Your task to perform on an android device: open a bookmark in the chrome app Image 0: 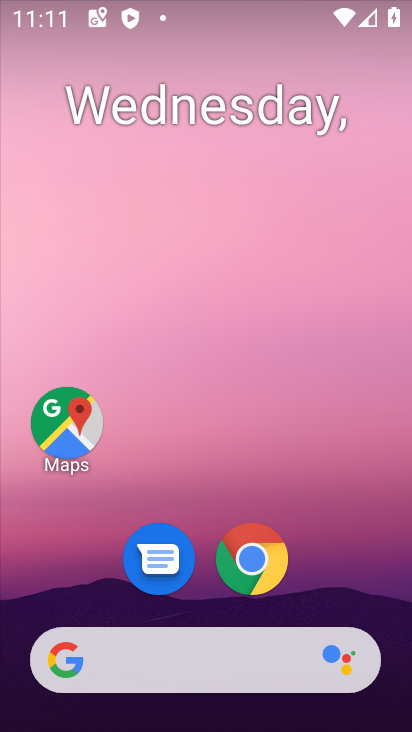
Step 0: click (272, 557)
Your task to perform on an android device: open a bookmark in the chrome app Image 1: 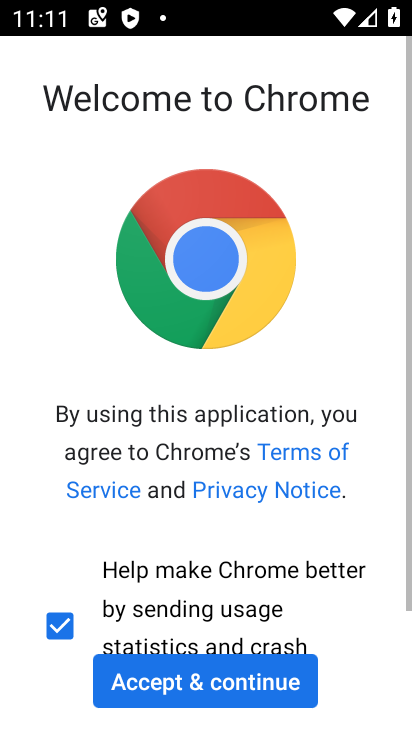
Step 1: click (214, 694)
Your task to perform on an android device: open a bookmark in the chrome app Image 2: 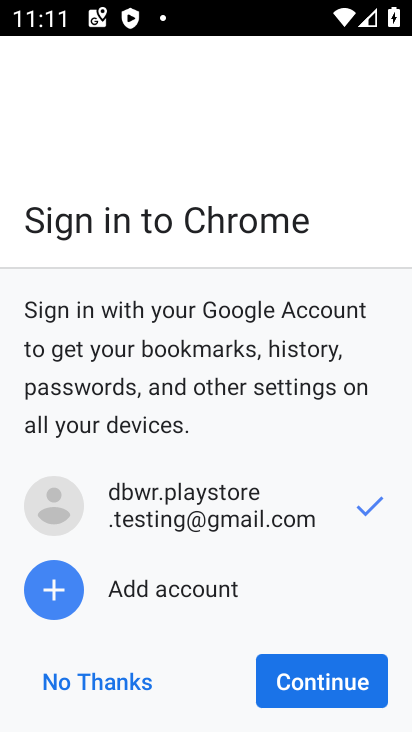
Step 2: click (318, 686)
Your task to perform on an android device: open a bookmark in the chrome app Image 3: 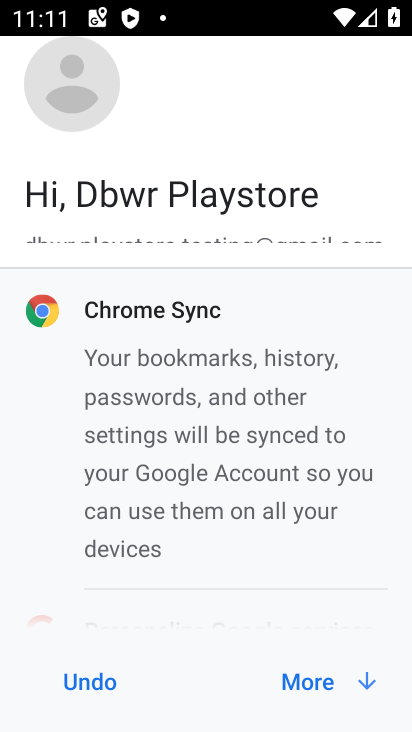
Step 3: click (325, 683)
Your task to perform on an android device: open a bookmark in the chrome app Image 4: 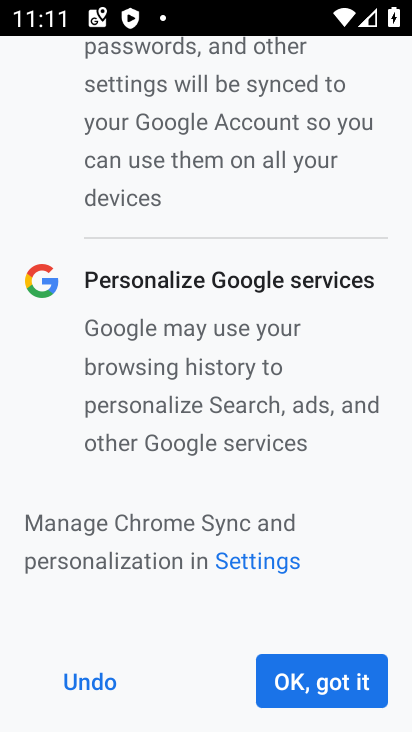
Step 4: click (320, 686)
Your task to perform on an android device: open a bookmark in the chrome app Image 5: 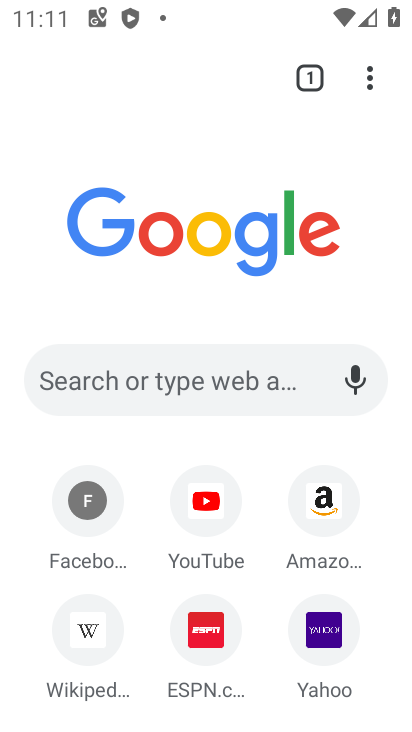
Step 5: task complete